Your task to perform on an android device: Show me the alarms in the clock app Image 0: 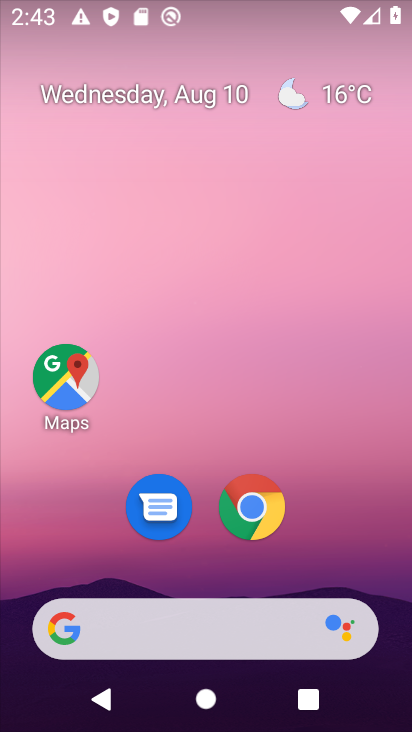
Step 0: drag from (348, 501) to (160, 34)
Your task to perform on an android device: Show me the alarms in the clock app Image 1: 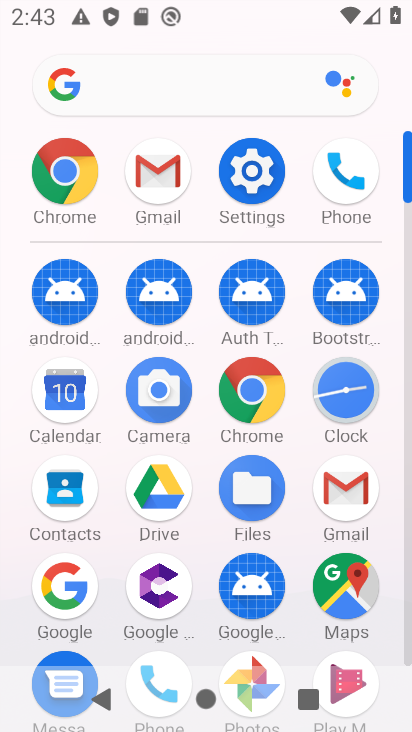
Step 1: click (365, 386)
Your task to perform on an android device: Show me the alarms in the clock app Image 2: 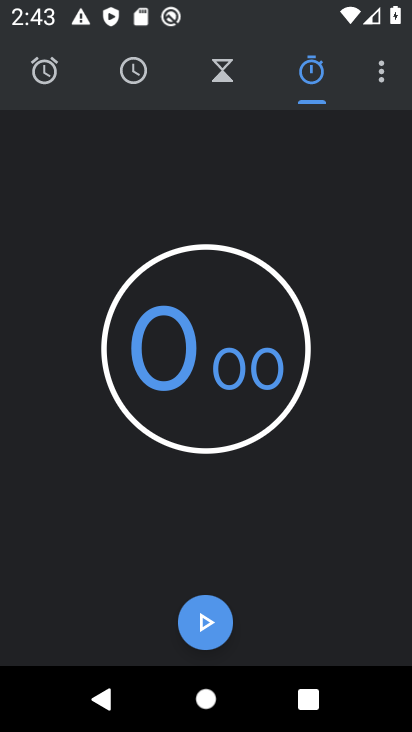
Step 2: click (56, 76)
Your task to perform on an android device: Show me the alarms in the clock app Image 3: 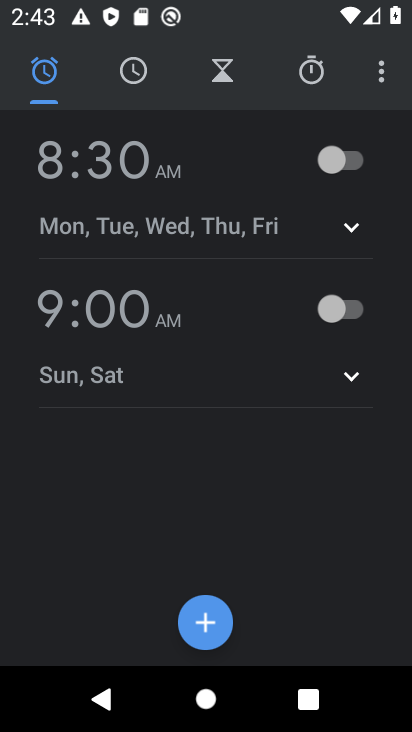
Step 3: task complete